Your task to perform on an android device: Show me the alarms in the clock app Image 0: 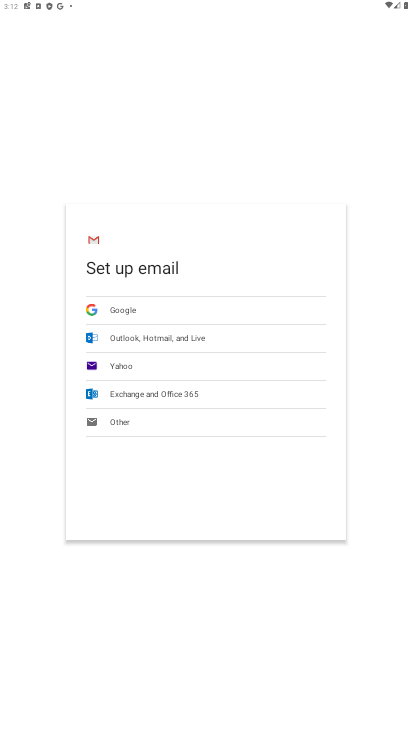
Step 0: press home button
Your task to perform on an android device: Show me the alarms in the clock app Image 1: 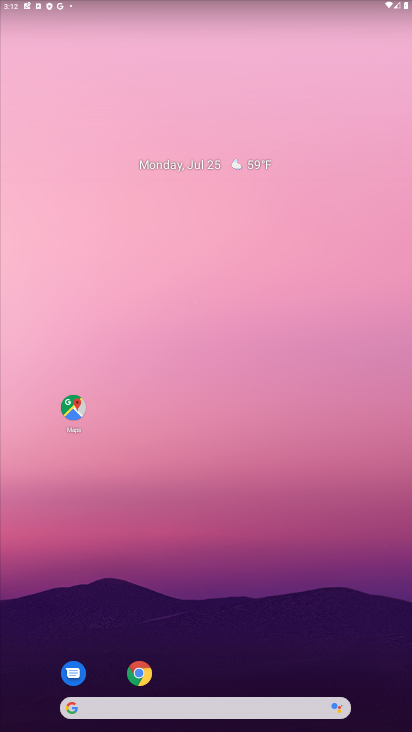
Step 1: drag from (204, 653) to (270, 4)
Your task to perform on an android device: Show me the alarms in the clock app Image 2: 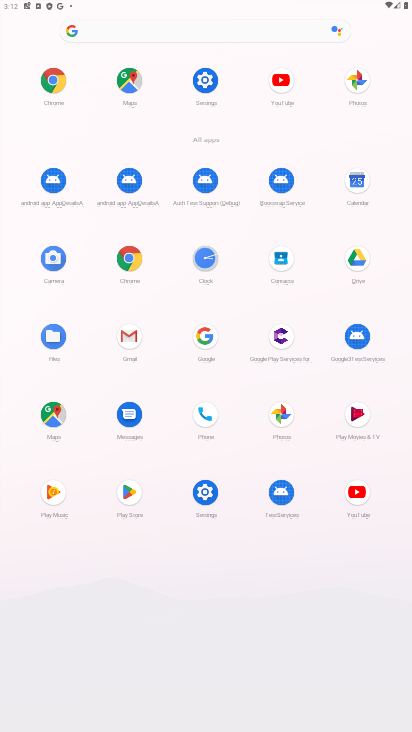
Step 2: click (203, 255)
Your task to perform on an android device: Show me the alarms in the clock app Image 3: 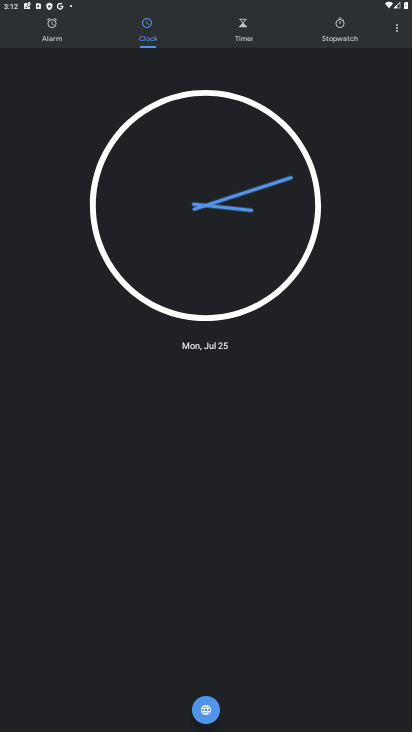
Step 3: click (49, 23)
Your task to perform on an android device: Show me the alarms in the clock app Image 4: 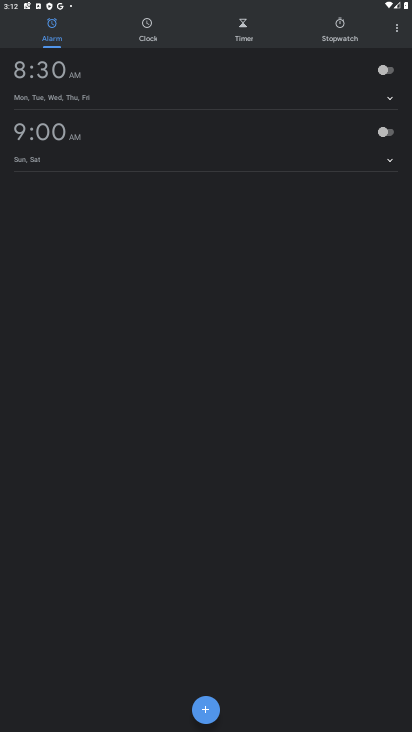
Step 4: task complete